Your task to perform on an android device: Go to Amazon Image 0: 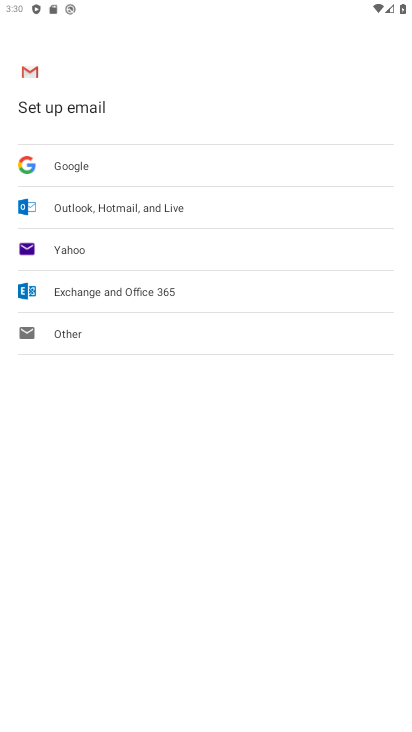
Step 0: press back button
Your task to perform on an android device: Go to Amazon Image 1: 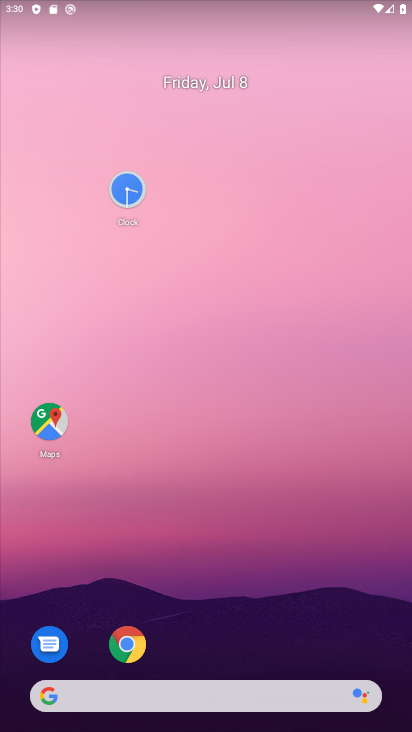
Step 1: drag from (272, 667) to (192, 261)
Your task to perform on an android device: Go to Amazon Image 2: 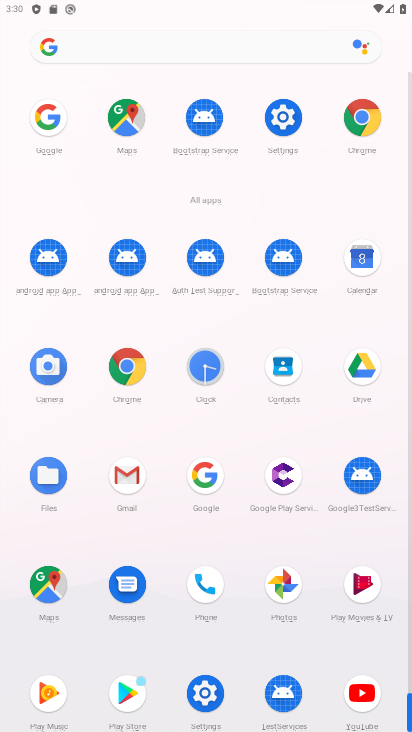
Step 2: click (111, 161)
Your task to perform on an android device: Go to Amazon Image 3: 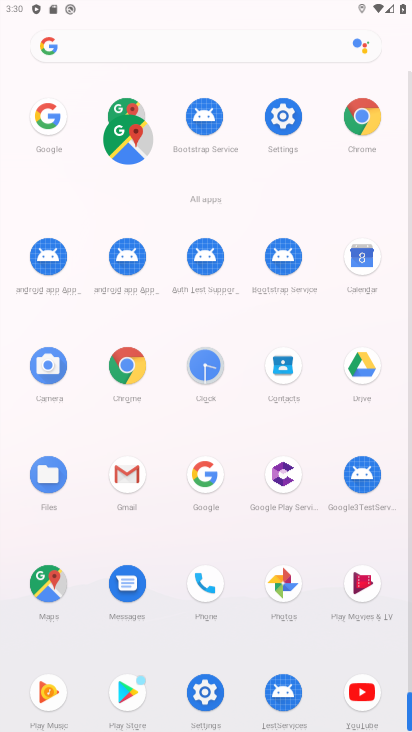
Step 3: click (351, 128)
Your task to perform on an android device: Go to Amazon Image 4: 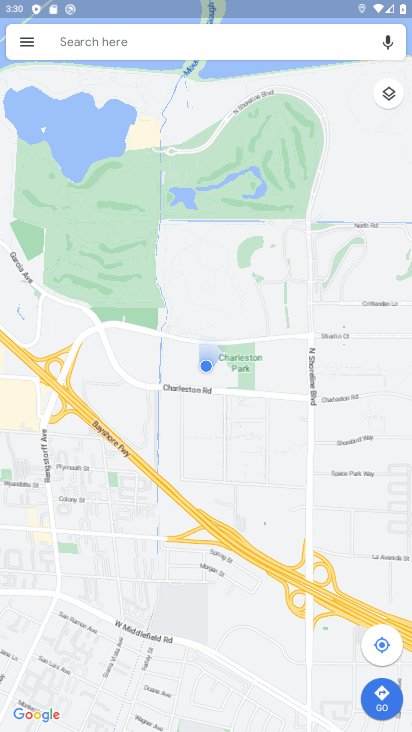
Step 4: press back button
Your task to perform on an android device: Go to Amazon Image 5: 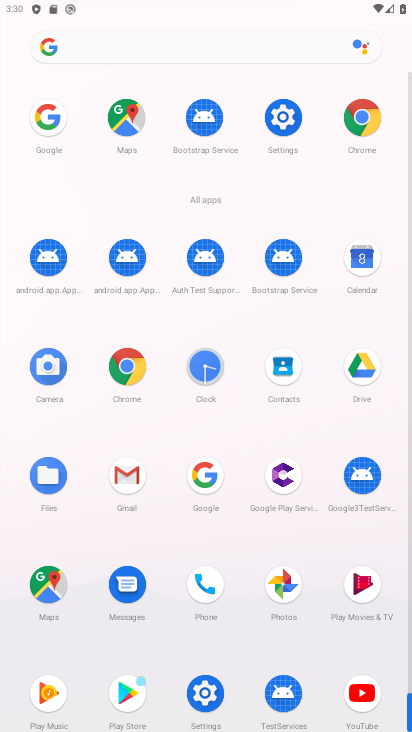
Step 5: press back button
Your task to perform on an android device: Go to Amazon Image 6: 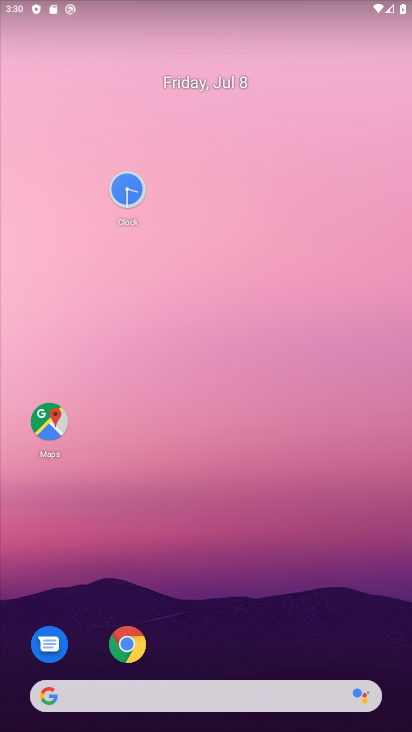
Step 6: click (174, 231)
Your task to perform on an android device: Go to Amazon Image 7: 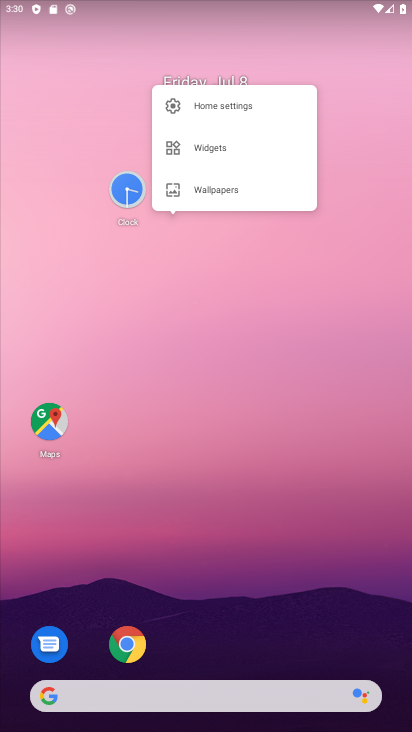
Step 7: drag from (192, 195) to (160, 95)
Your task to perform on an android device: Go to Amazon Image 8: 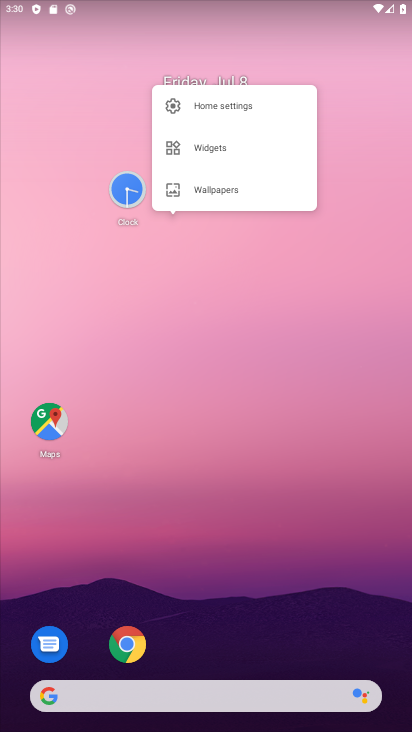
Step 8: drag from (243, 518) to (193, 23)
Your task to perform on an android device: Go to Amazon Image 9: 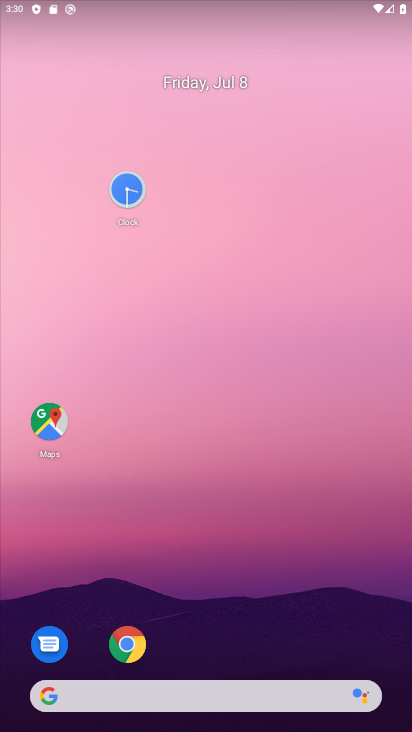
Step 9: drag from (176, 437) to (143, 125)
Your task to perform on an android device: Go to Amazon Image 10: 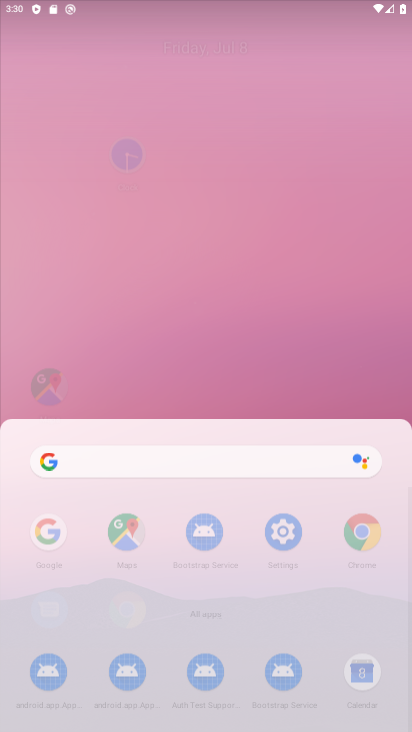
Step 10: drag from (236, 666) to (189, 186)
Your task to perform on an android device: Go to Amazon Image 11: 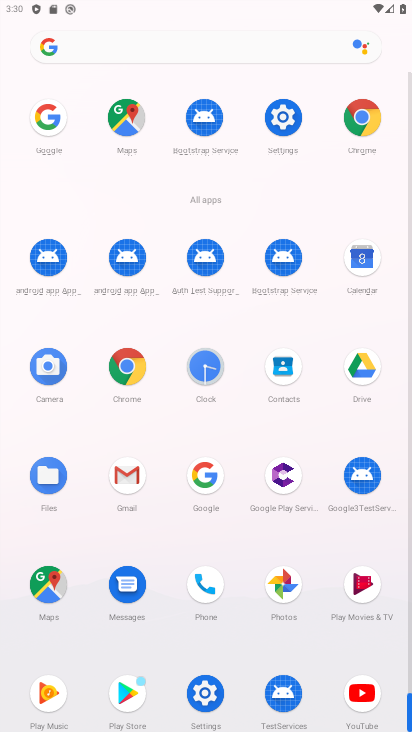
Step 11: click (254, 206)
Your task to perform on an android device: Go to Amazon Image 12: 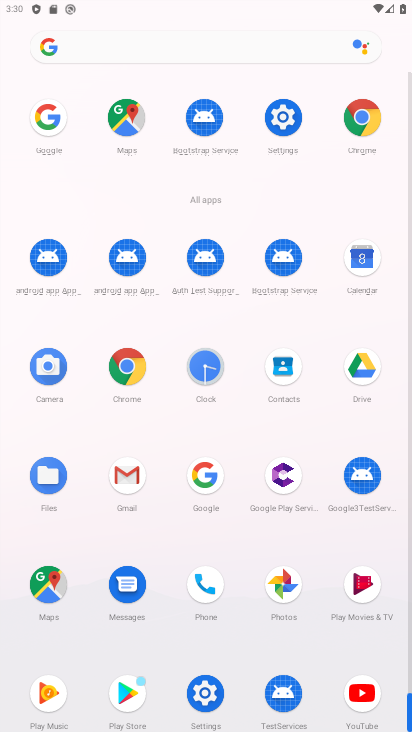
Step 12: drag from (204, 533) to (157, 209)
Your task to perform on an android device: Go to Amazon Image 13: 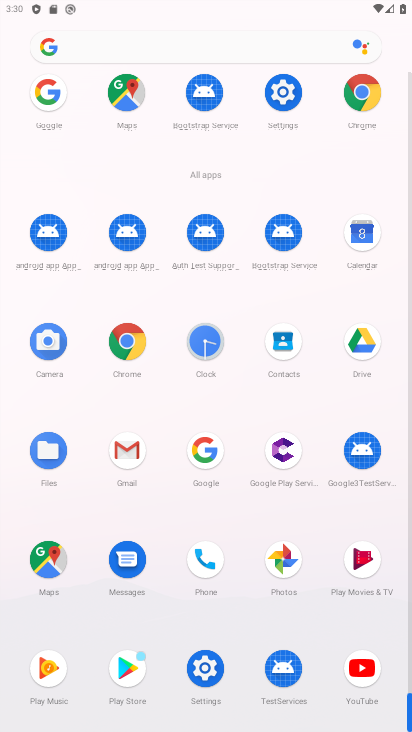
Step 13: drag from (131, 351) to (147, 17)
Your task to perform on an android device: Go to Amazon Image 14: 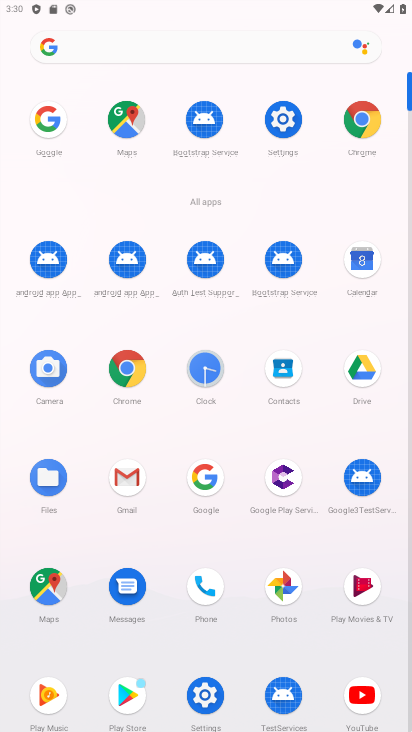
Step 14: drag from (222, 500) to (144, 85)
Your task to perform on an android device: Go to Amazon Image 15: 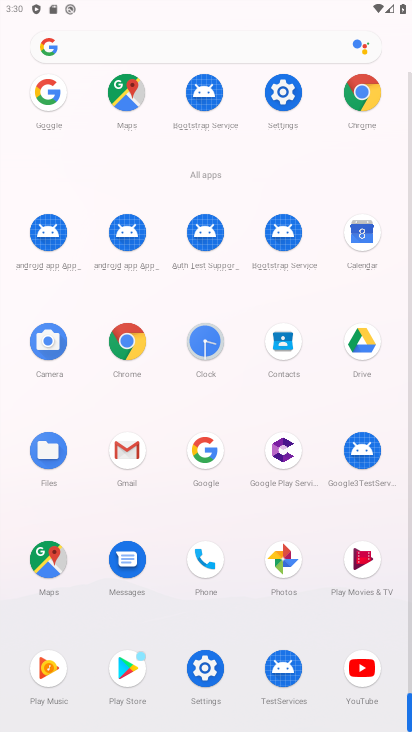
Step 15: click (363, 99)
Your task to perform on an android device: Go to Amazon Image 16: 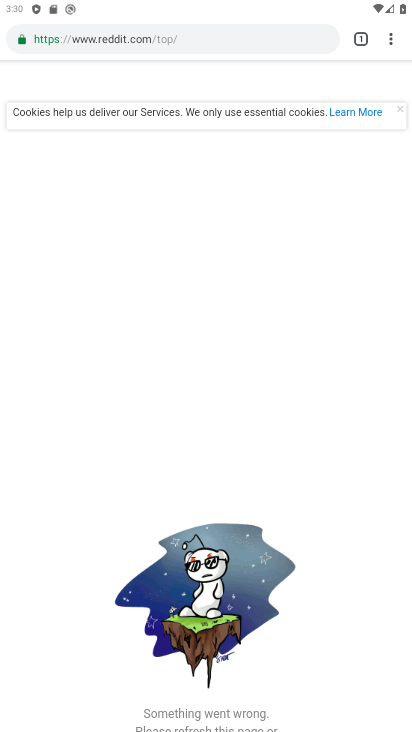
Step 16: click (359, 95)
Your task to perform on an android device: Go to Amazon Image 17: 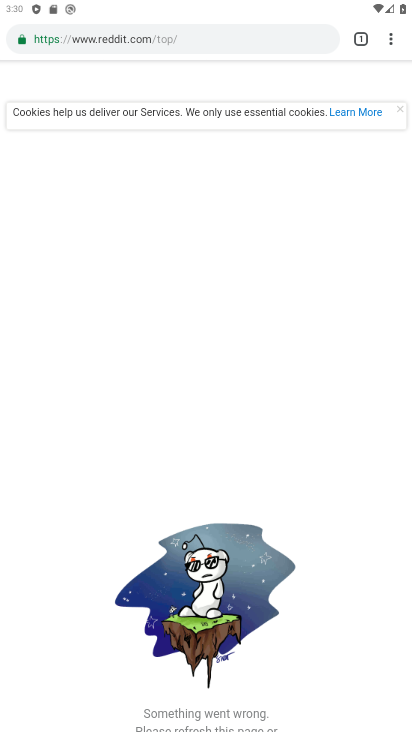
Step 17: task complete